Your task to perform on an android device: Open privacy settings Image 0: 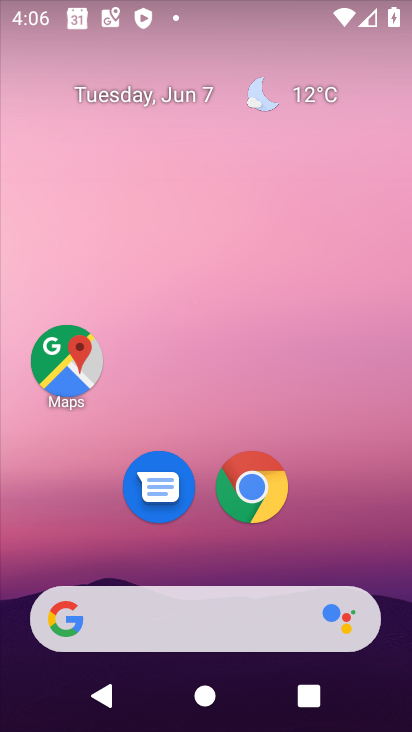
Step 0: drag from (206, 585) to (285, 14)
Your task to perform on an android device: Open privacy settings Image 1: 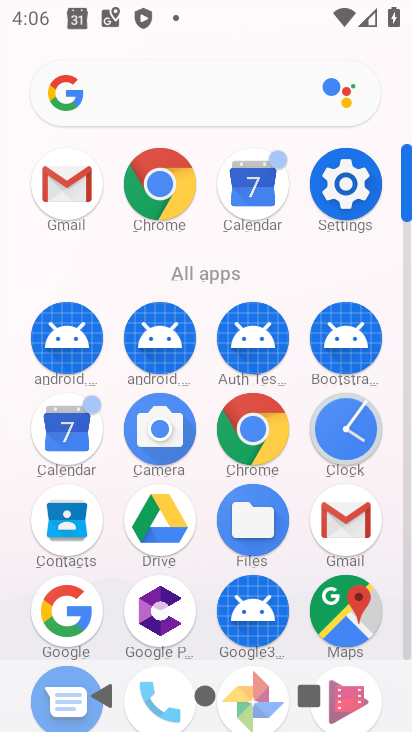
Step 1: click (335, 182)
Your task to perform on an android device: Open privacy settings Image 2: 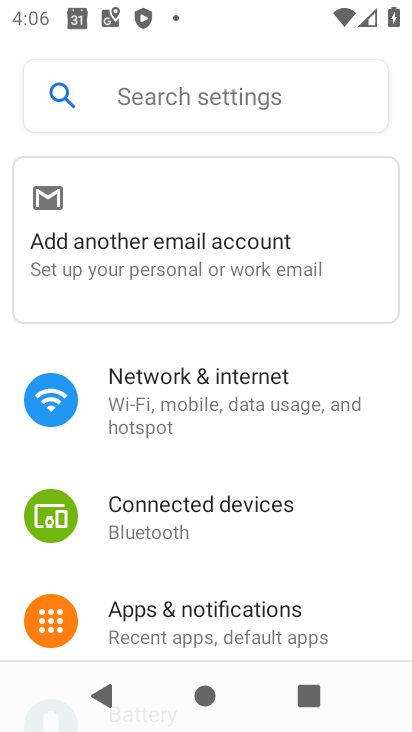
Step 2: drag from (197, 584) to (282, 172)
Your task to perform on an android device: Open privacy settings Image 3: 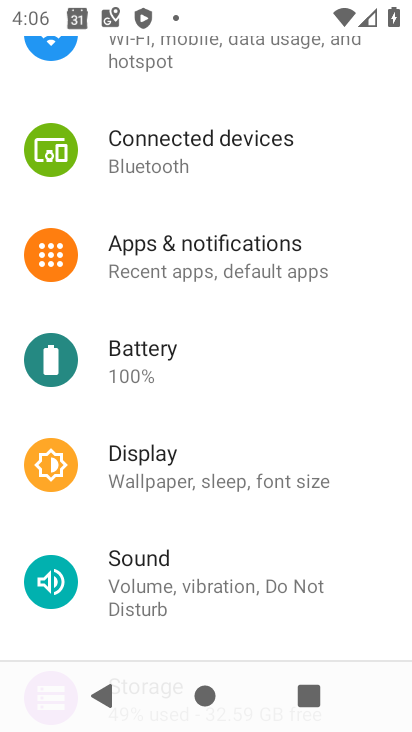
Step 3: drag from (182, 552) to (266, 202)
Your task to perform on an android device: Open privacy settings Image 4: 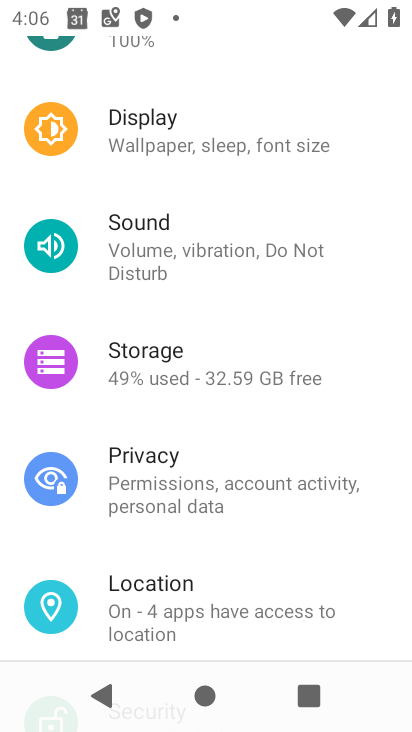
Step 4: click (172, 460)
Your task to perform on an android device: Open privacy settings Image 5: 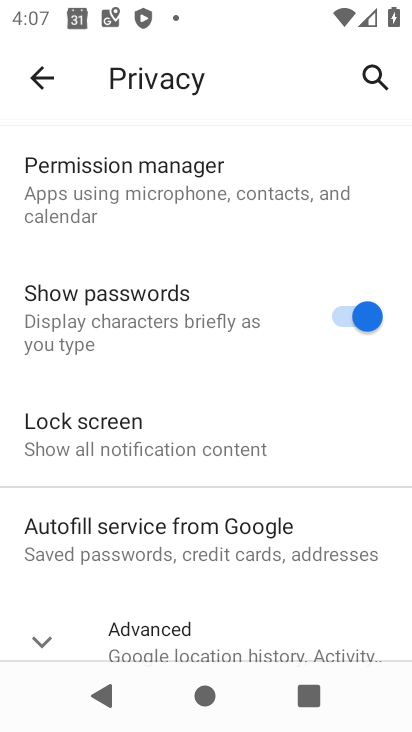
Step 5: task complete